Your task to perform on an android device: When is my next appointment? Image 0: 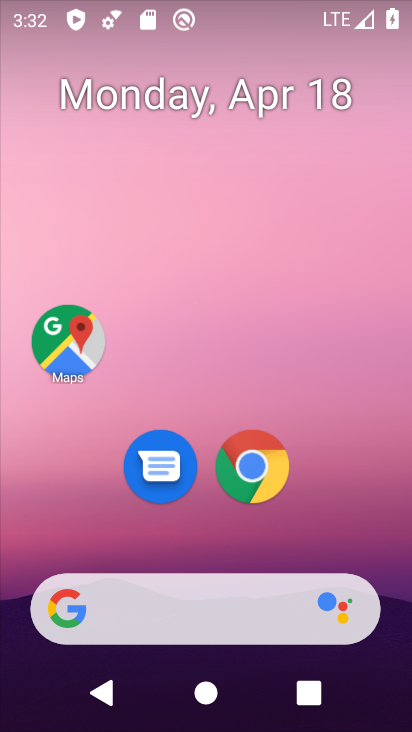
Step 0: drag from (367, 550) to (249, 78)
Your task to perform on an android device: When is my next appointment? Image 1: 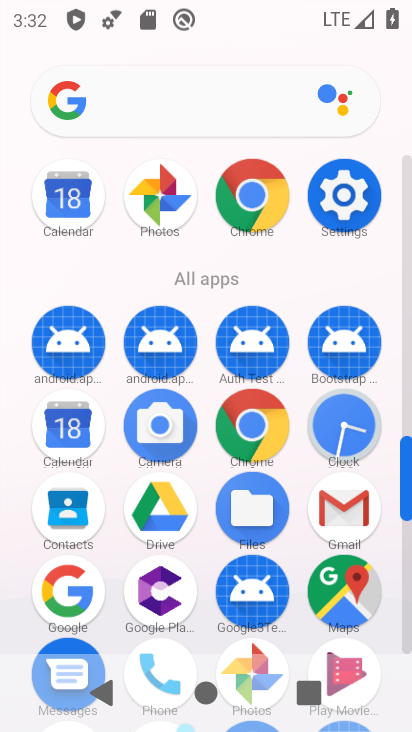
Step 1: click (67, 211)
Your task to perform on an android device: When is my next appointment? Image 2: 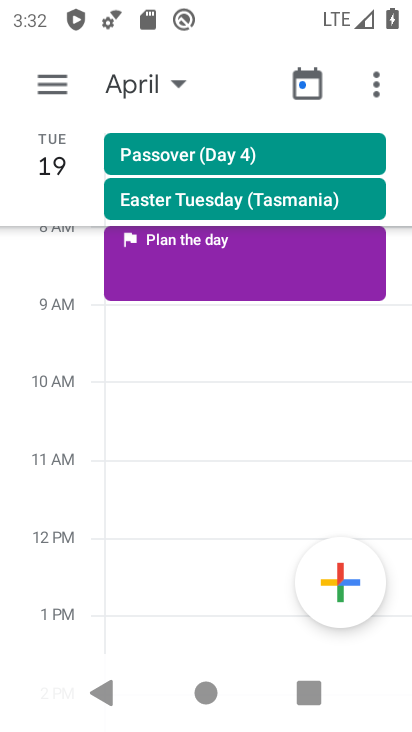
Step 2: task complete